Your task to perform on an android device: set default search engine in the chrome app Image 0: 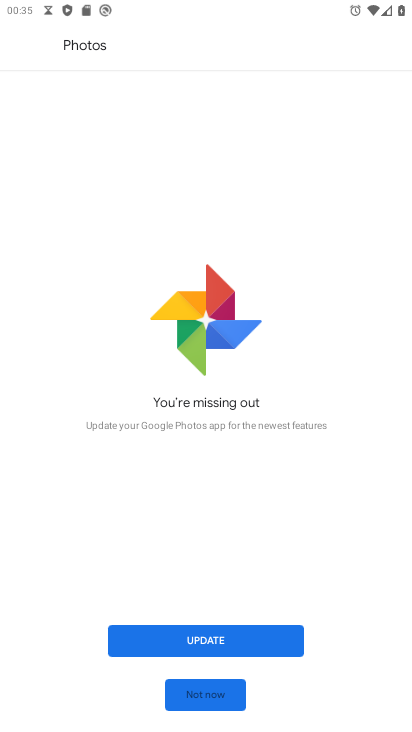
Step 0: press home button
Your task to perform on an android device: set default search engine in the chrome app Image 1: 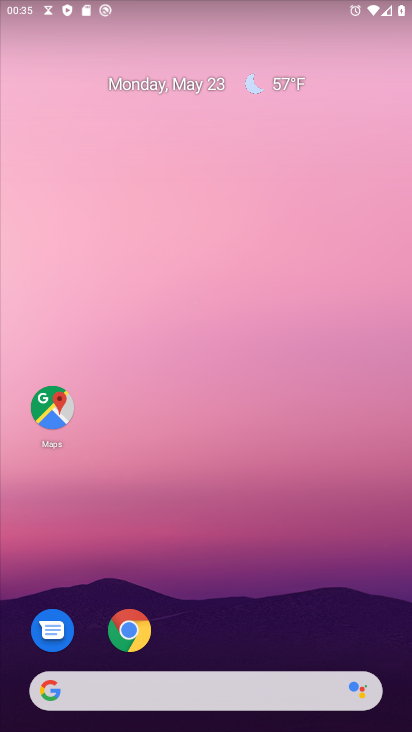
Step 1: click (131, 629)
Your task to perform on an android device: set default search engine in the chrome app Image 2: 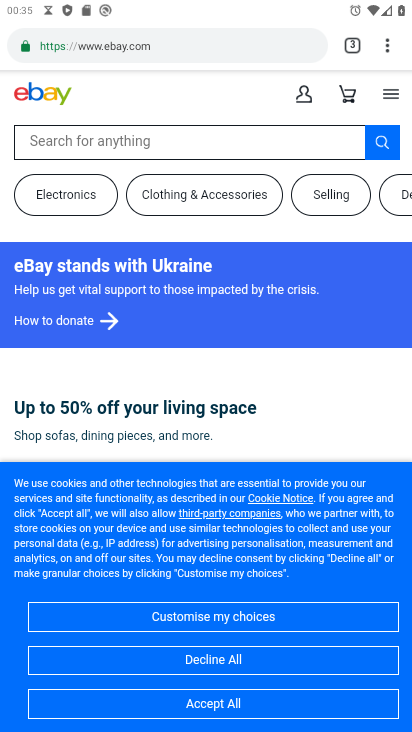
Step 2: click (383, 50)
Your task to perform on an android device: set default search engine in the chrome app Image 3: 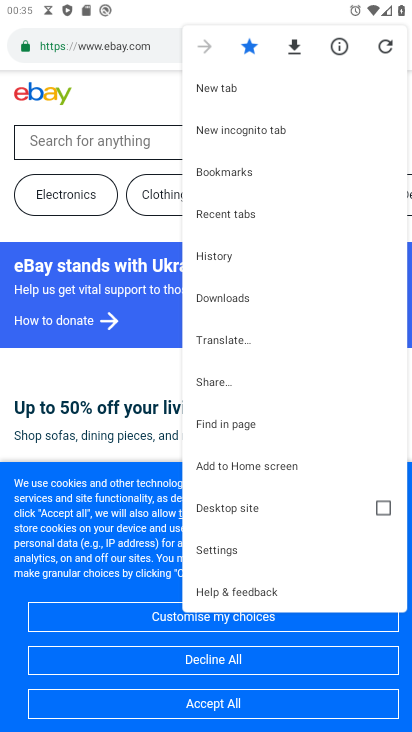
Step 3: click (261, 550)
Your task to perform on an android device: set default search engine in the chrome app Image 4: 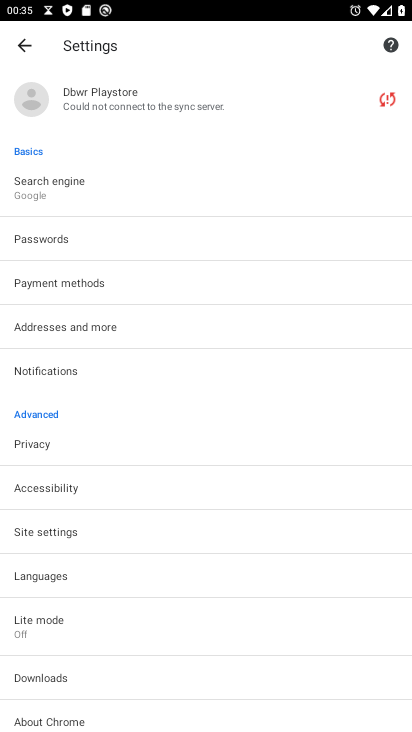
Step 4: click (125, 192)
Your task to perform on an android device: set default search engine in the chrome app Image 5: 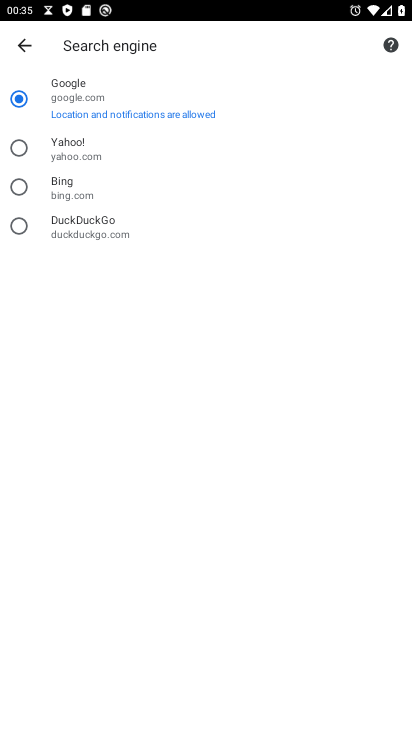
Step 5: click (135, 69)
Your task to perform on an android device: set default search engine in the chrome app Image 6: 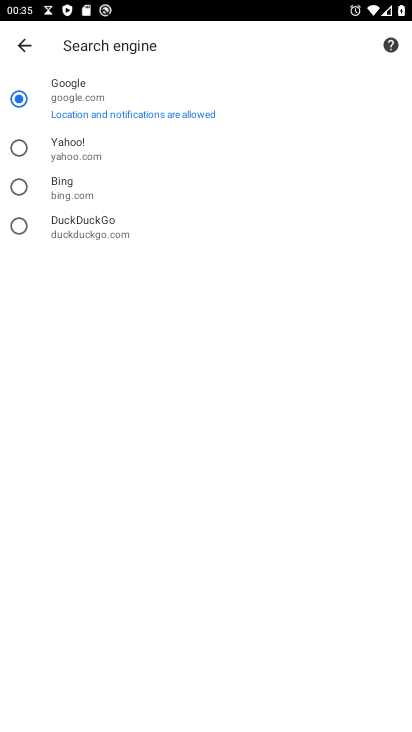
Step 6: task complete